Your task to perform on an android device: Open the calendar app, open the side menu, and click the "Day" option Image 0: 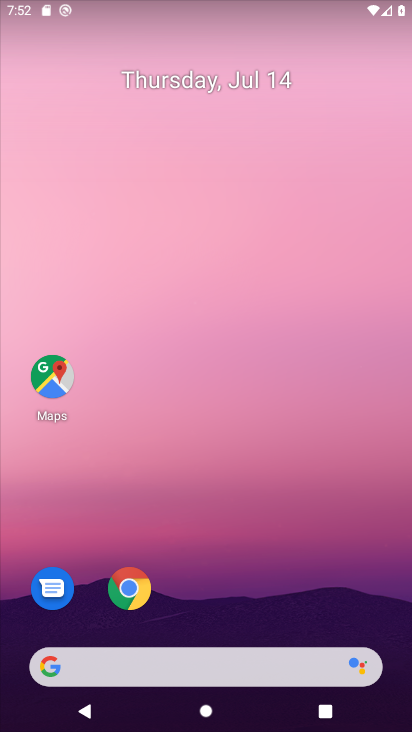
Step 0: drag from (325, 609) to (354, 108)
Your task to perform on an android device: Open the calendar app, open the side menu, and click the "Day" option Image 1: 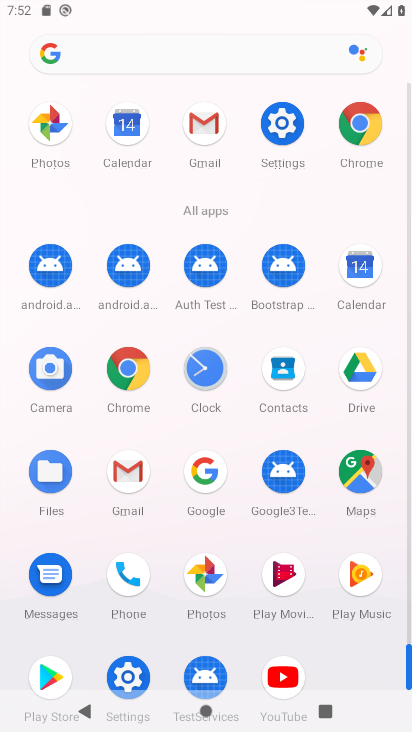
Step 1: click (364, 269)
Your task to perform on an android device: Open the calendar app, open the side menu, and click the "Day" option Image 2: 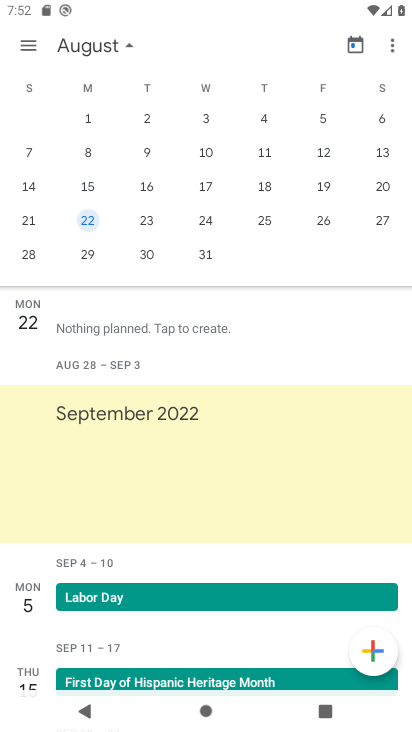
Step 2: click (30, 46)
Your task to perform on an android device: Open the calendar app, open the side menu, and click the "Day" option Image 3: 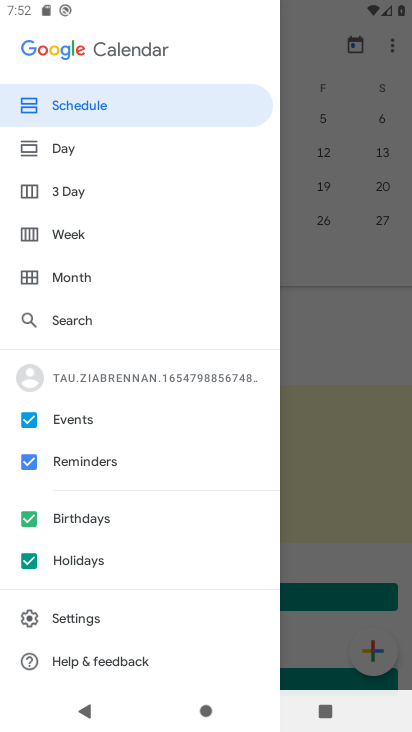
Step 3: click (67, 147)
Your task to perform on an android device: Open the calendar app, open the side menu, and click the "Day" option Image 4: 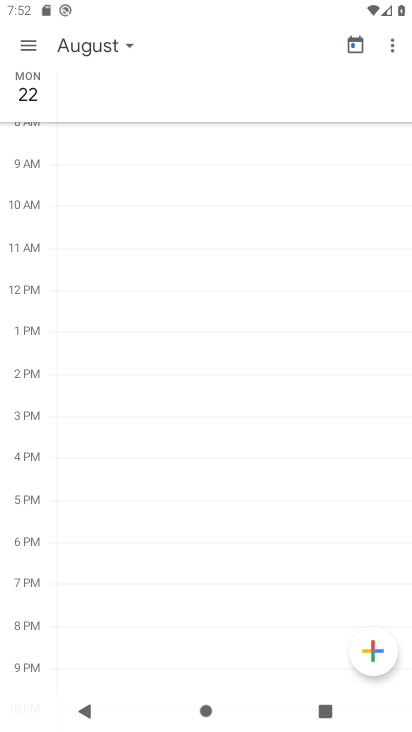
Step 4: task complete